Your task to perform on an android device: Go to CNN.com Image 0: 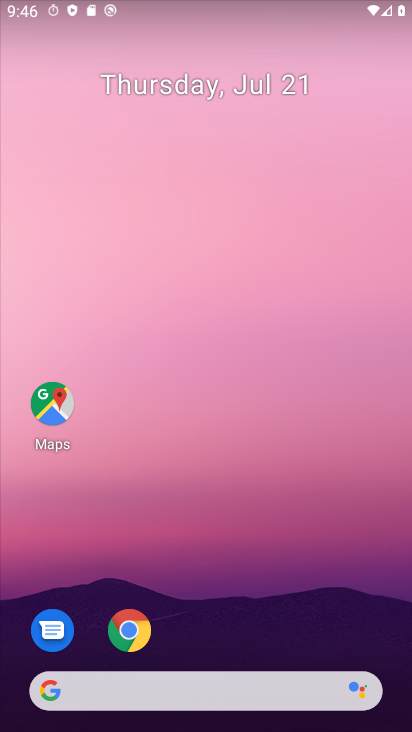
Step 0: drag from (204, 402) to (180, 139)
Your task to perform on an android device: Go to CNN.com Image 1: 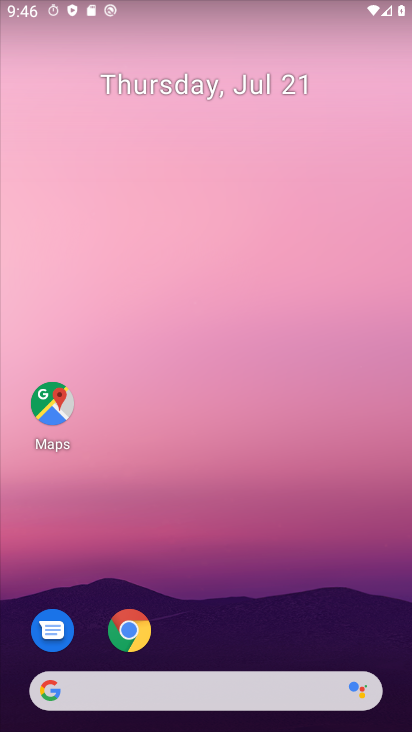
Step 1: drag from (243, 620) to (214, 256)
Your task to perform on an android device: Go to CNN.com Image 2: 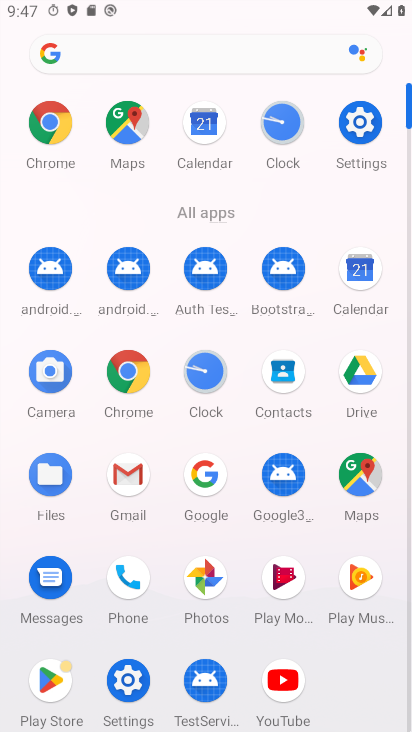
Step 2: click (359, 132)
Your task to perform on an android device: Go to CNN.com Image 3: 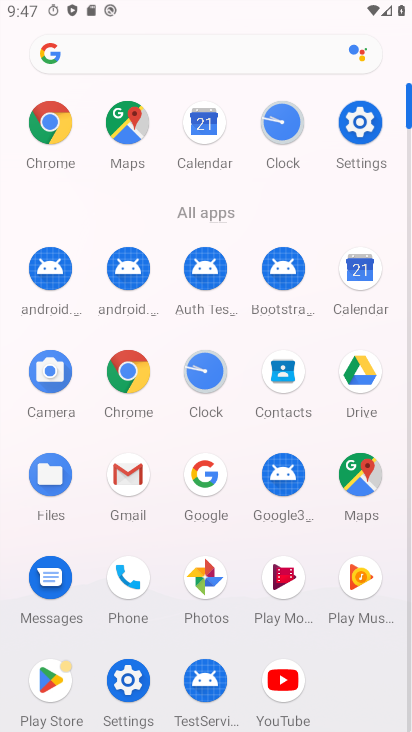
Step 3: click (366, 126)
Your task to perform on an android device: Go to CNN.com Image 4: 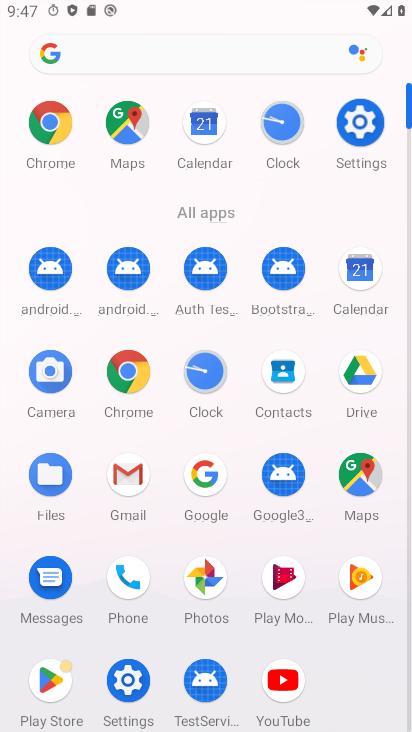
Step 4: click (378, 130)
Your task to perform on an android device: Go to CNN.com Image 5: 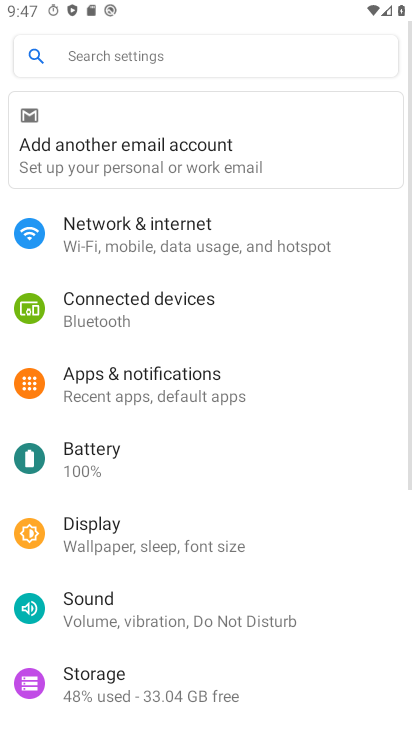
Step 5: press back button
Your task to perform on an android device: Go to CNN.com Image 6: 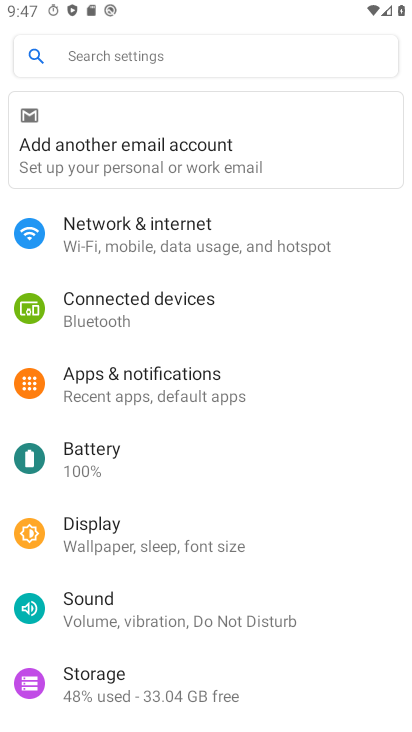
Step 6: press back button
Your task to perform on an android device: Go to CNN.com Image 7: 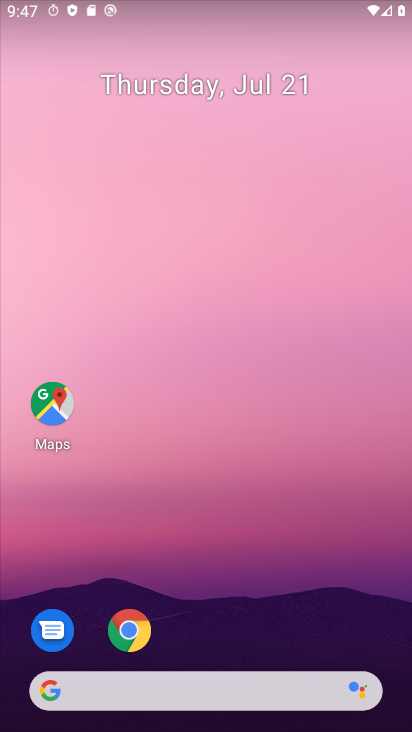
Step 7: drag from (197, 590) to (147, 245)
Your task to perform on an android device: Go to CNN.com Image 8: 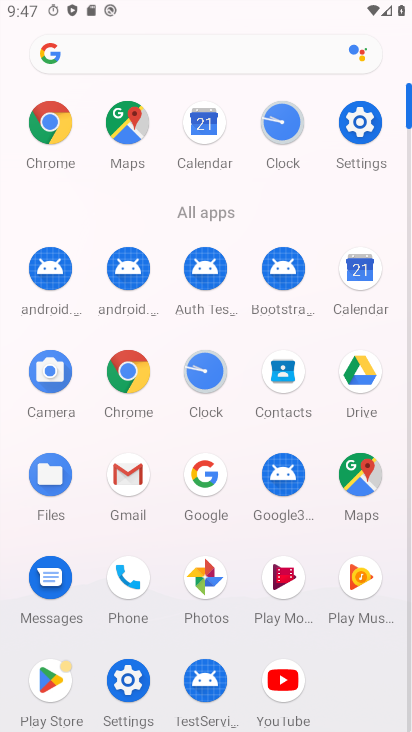
Step 8: click (50, 134)
Your task to perform on an android device: Go to CNN.com Image 9: 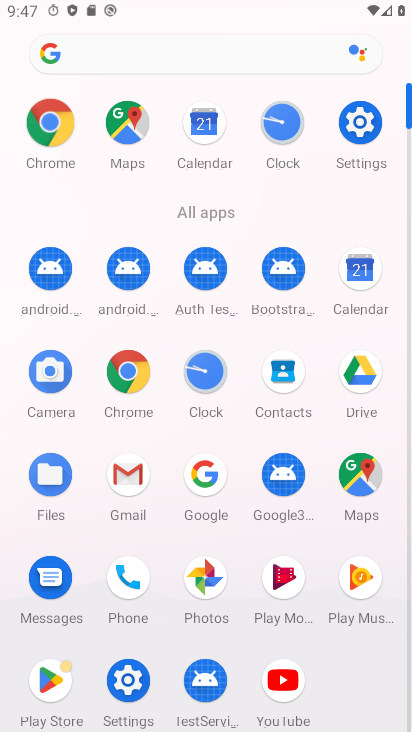
Step 9: click (49, 133)
Your task to perform on an android device: Go to CNN.com Image 10: 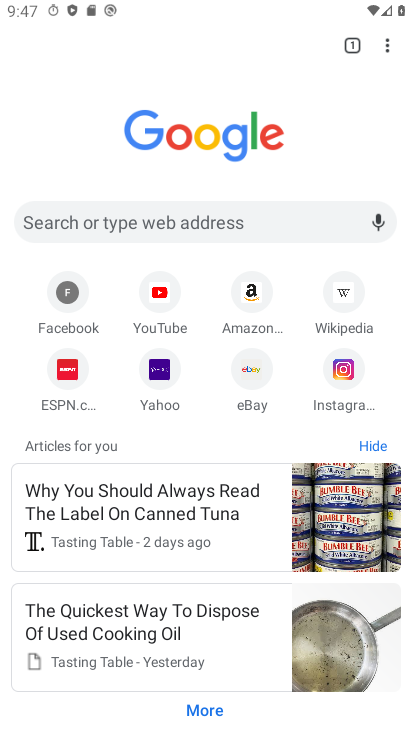
Step 10: click (54, 221)
Your task to perform on an android device: Go to CNN.com Image 11: 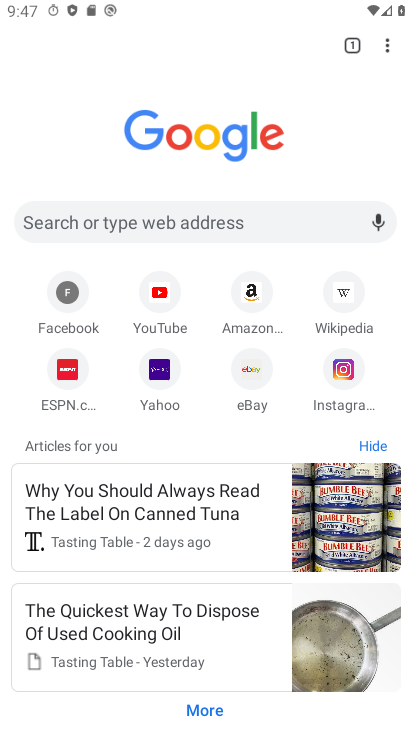
Step 11: click (54, 221)
Your task to perform on an android device: Go to CNN.com Image 12: 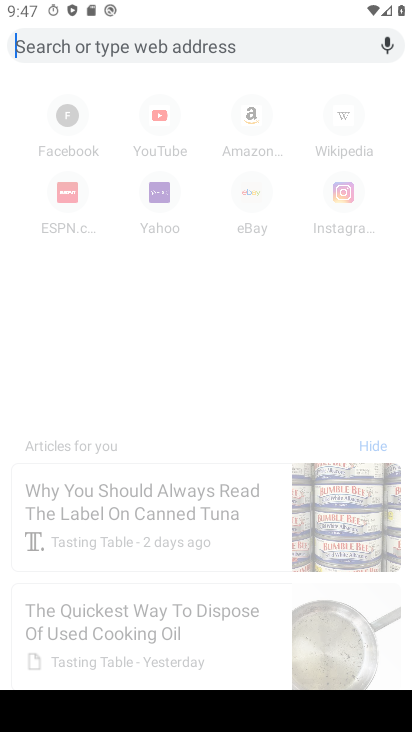
Step 12: type "CNN.com"
Your task to perform on an android device: Go to CNN.com Image 13: 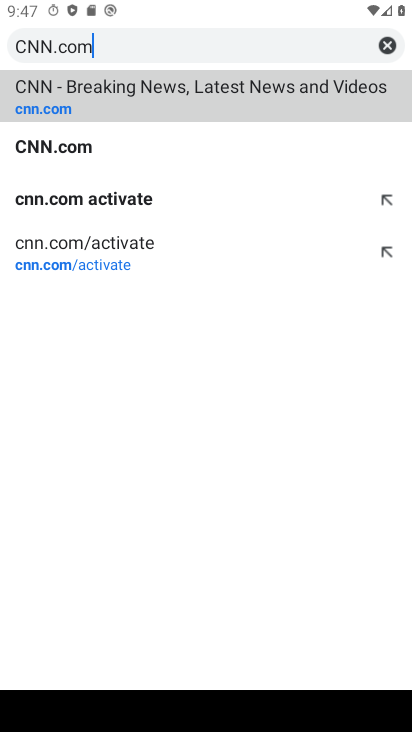
Step 13: click (49, 103)
Your task to perform on an android device: Go to CNN.com Image 14: 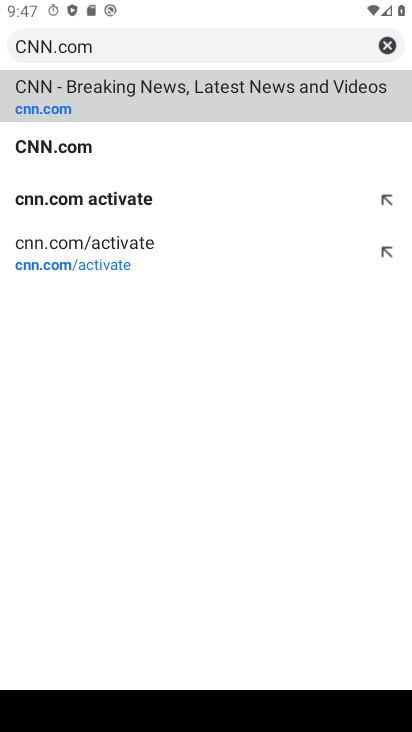
Step 14: click (44, 106)
Your task to perform on an android device: Go to CNN.com Image 15: 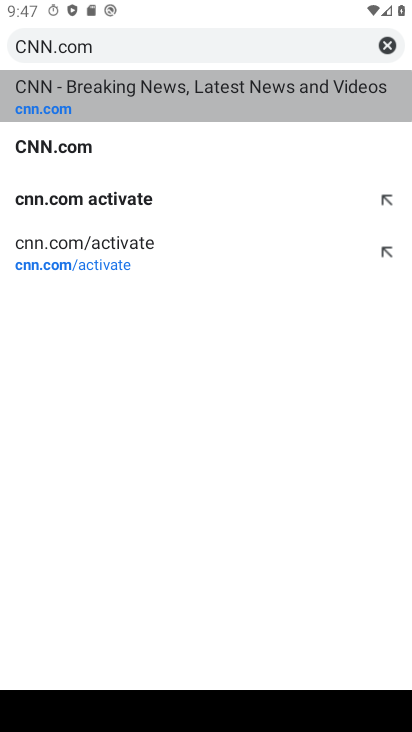
Step 15: click (46, 108)
Your task to perform on an android device: Go to CNN.com Image 16: 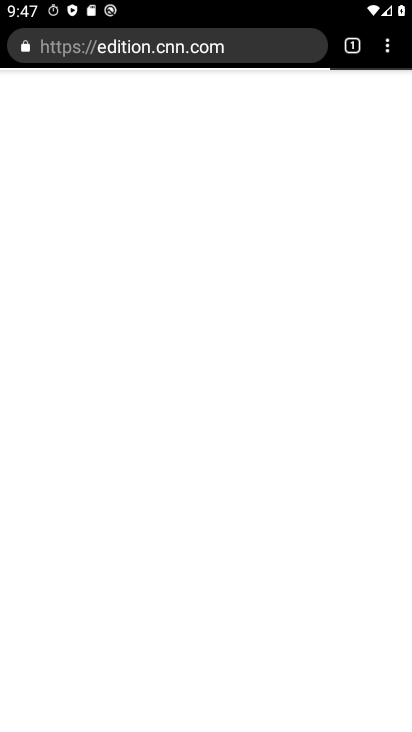
Step 16: task complete